Your task to perform on an android device: Open wifi settings Image 0: 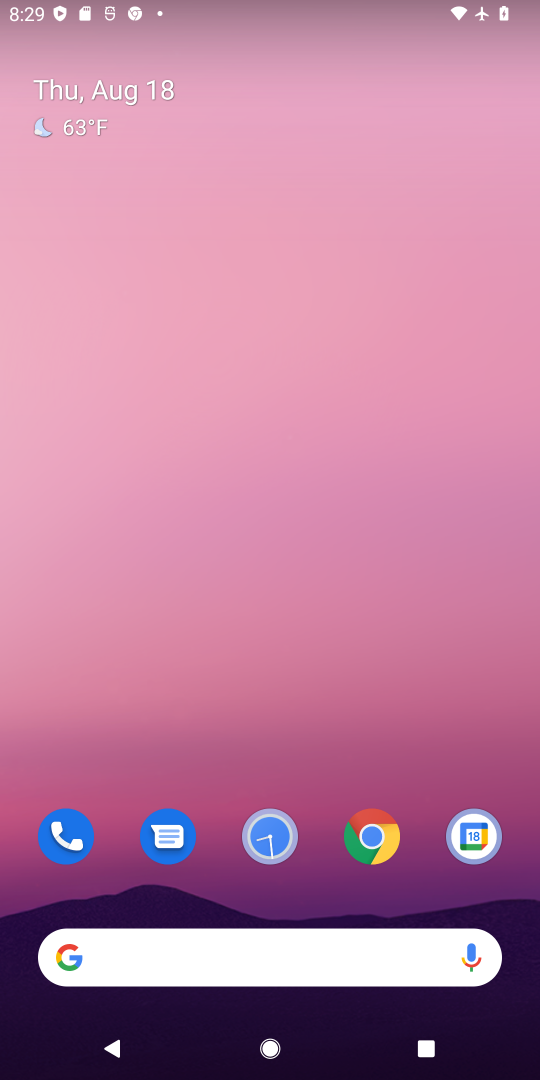
Step 0: drag from (327, 895) to (303, 8)
Your task to perform on an android device: Open wifi settings Image 1: 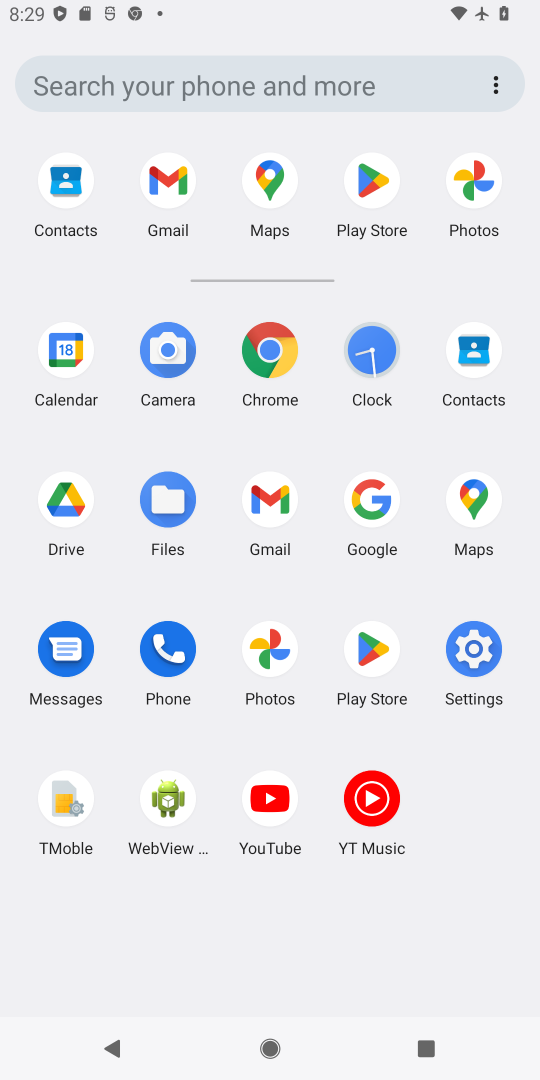
Step 1: click (478, 652)
Your task to perform on an android device: Open wifi settings Image 2: 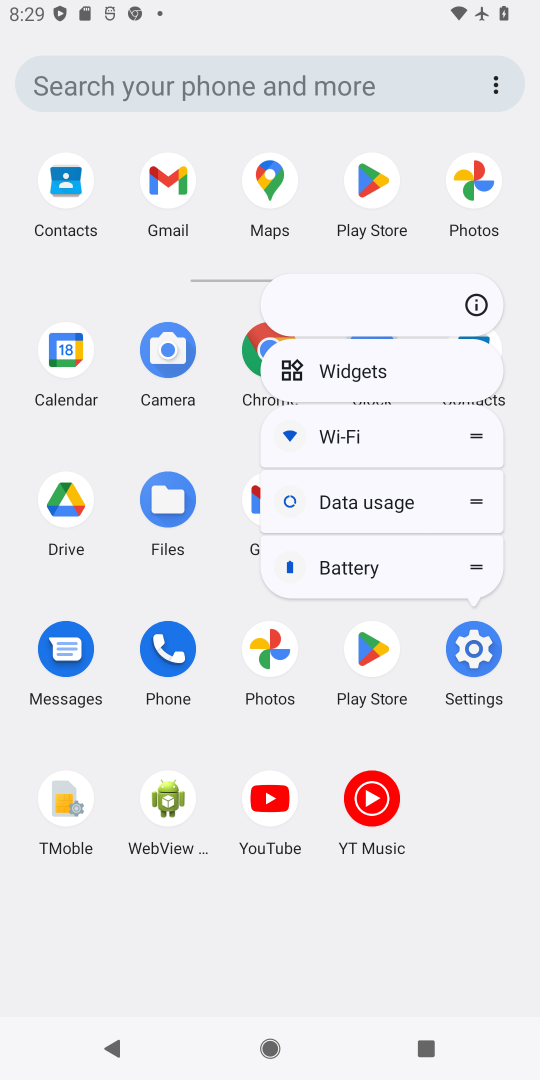
Step 2: click (471, 652)
Your task to perform on an android device: Open wifi settings Image 3: 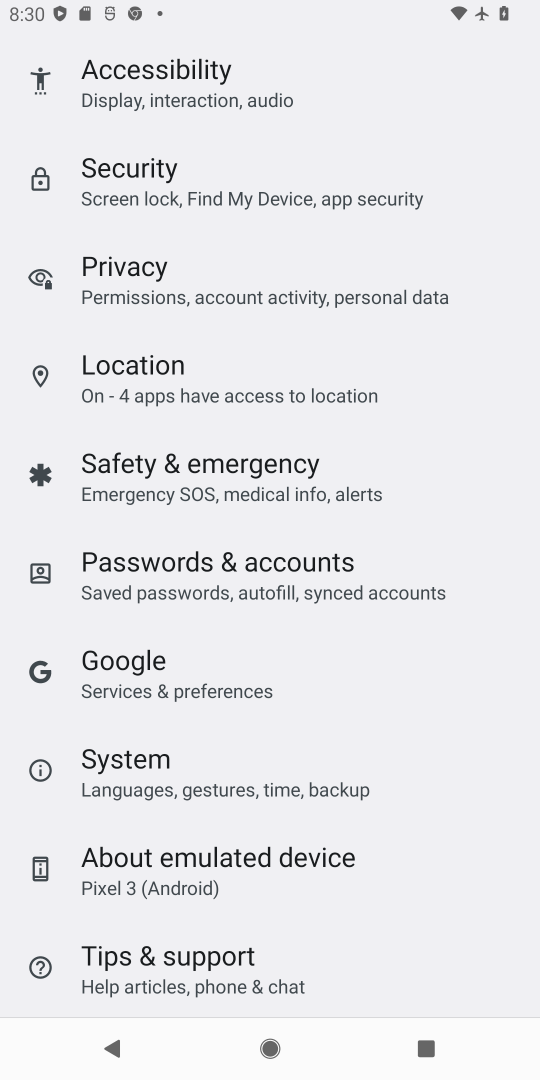
Step 3: drag from (363, 131) to (364, 646)
Your task to perform on an android device: Open wifi settings Image 4: 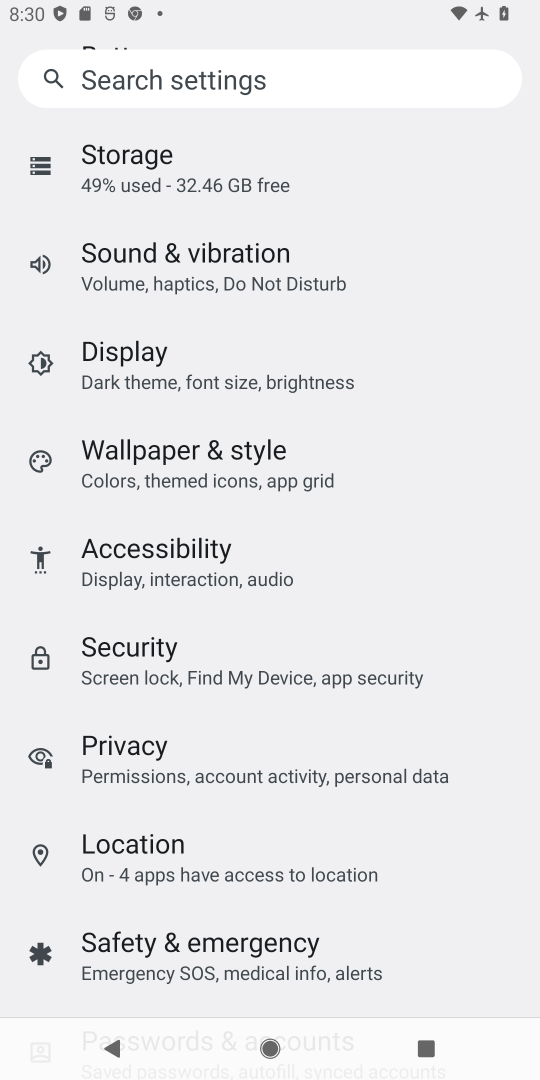
Step 4: drag from (319, 223) to (313, 766)
Your task to perform on an android device: Open wifi settings Image 5: 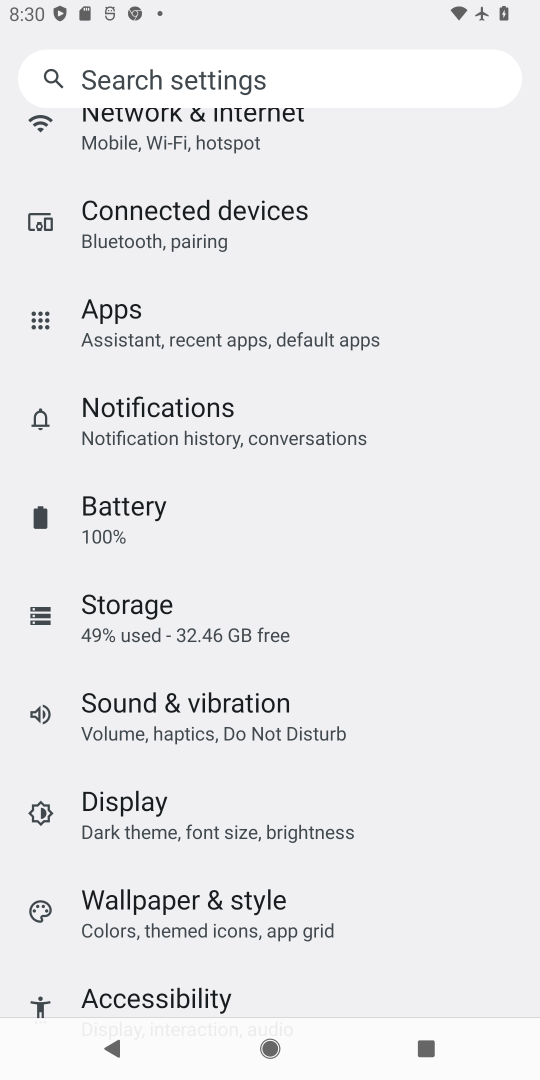
Step 5: drag from (367, 179) to (337, 916)
Your task to perform on an android device: Open wifi settings Image 6: 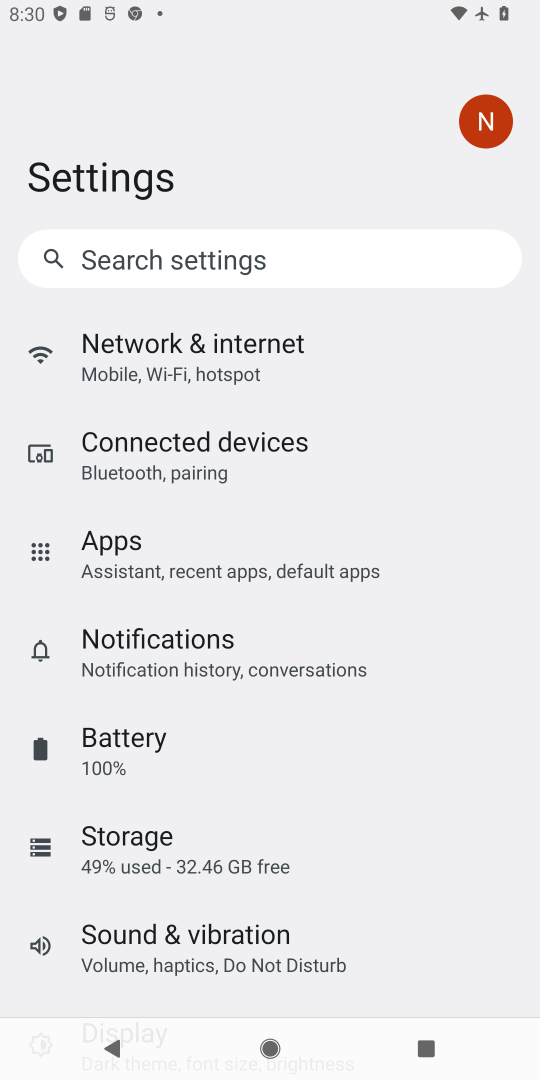
Step 6: click (223, 359)
Your task to perform on an android device: Open wifi settings Image 7: 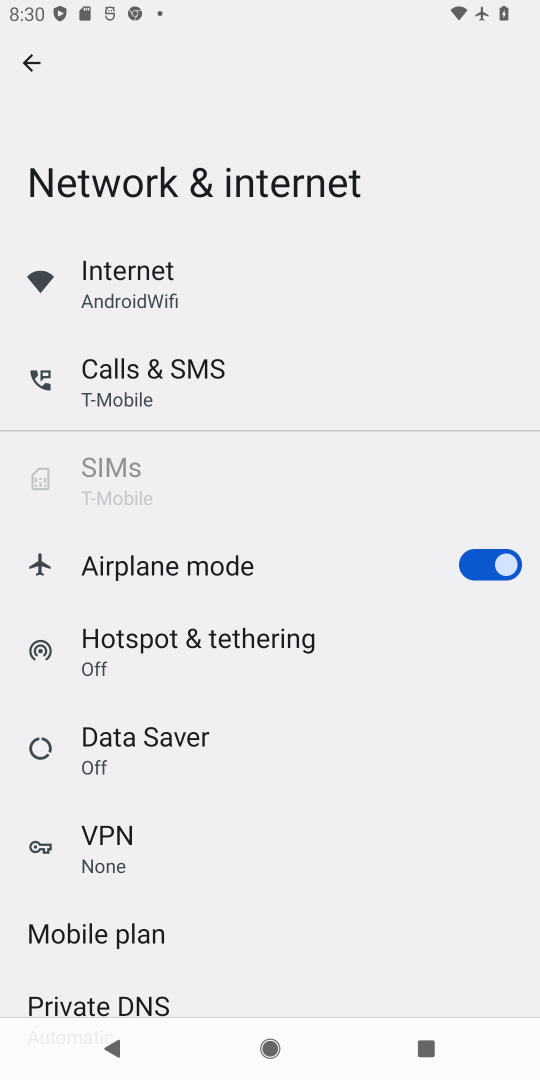
Step 7: click (157, 288)
Your task to perform on an android device: Open wifi settings Image 8: 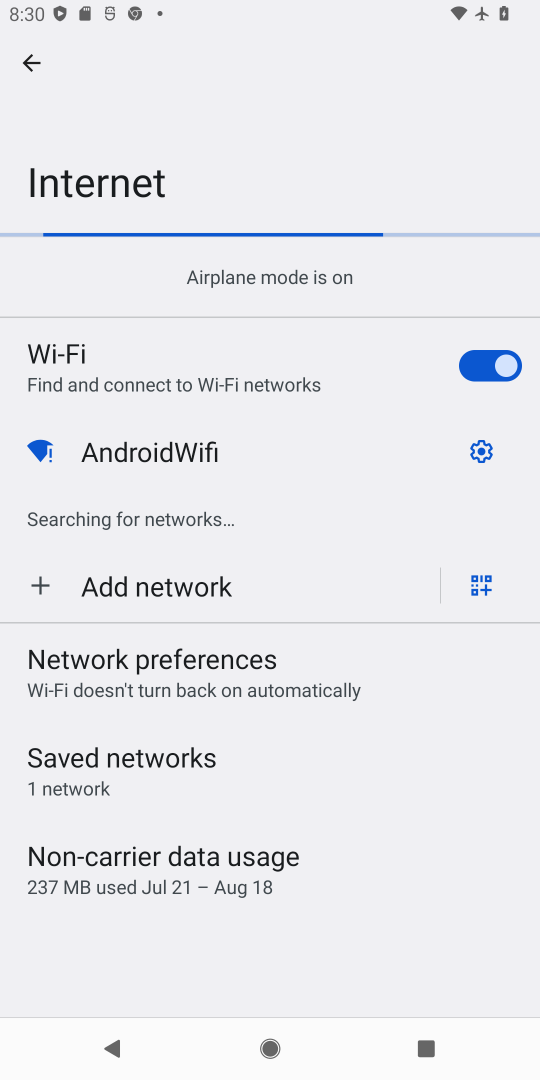
Step 8: click (494, 454)
Your task to perform on an android device: Open wifi settings Image 9: 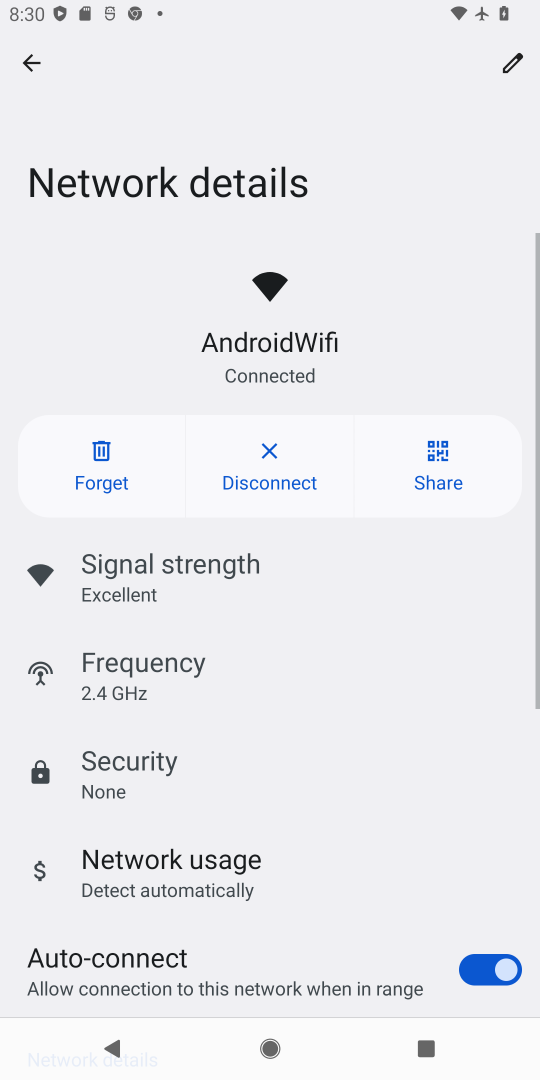
Step 9: task complete